Your task to perform on an android device: Go to privacy settings Image 0: 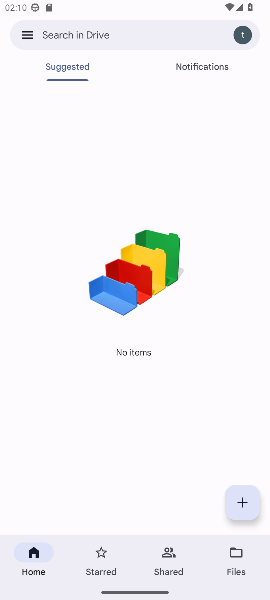
Step 0: press home button
Your task to perform on an android device: Go to privacy settings Image 1: 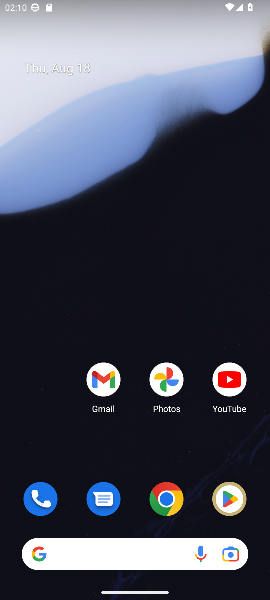
Step 1: drag from (138, 464) to (128, 81)
Your task to perform on an android device: Go to privacy settings Image 2: 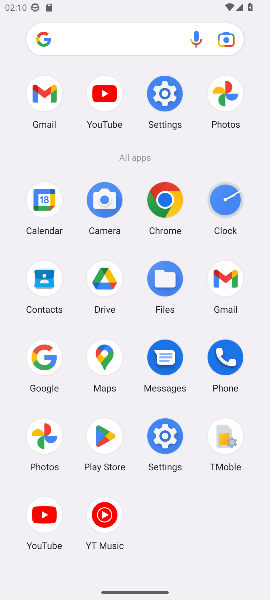
Step 2: click (167, 97)
Your task to perform on an android device: Go to privacy settings Image 3: 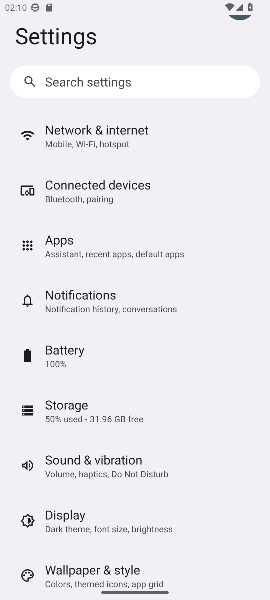
Step 3: drag from (207, 498) to (197, 227)
Your task to perform on an android device: Go to privacy settings Image 4: 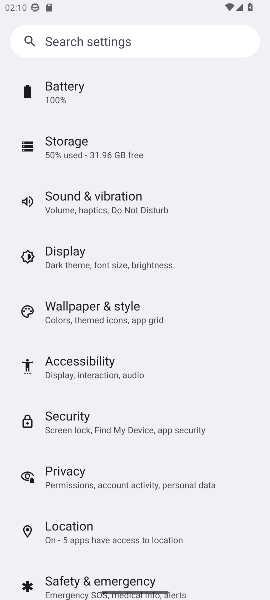
Step 4: click (60, 474)
Your task to perform on an android device: Go to privacy settings Image 5: 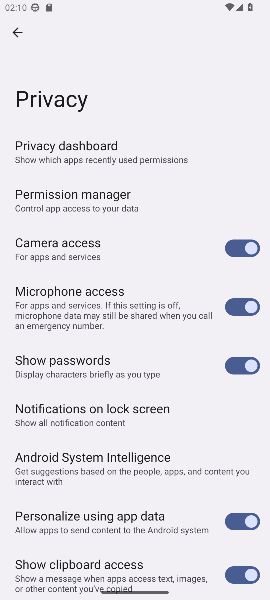
Step 5: task complete